Your task to perform on an android device: turn off airplane mode Image 0: 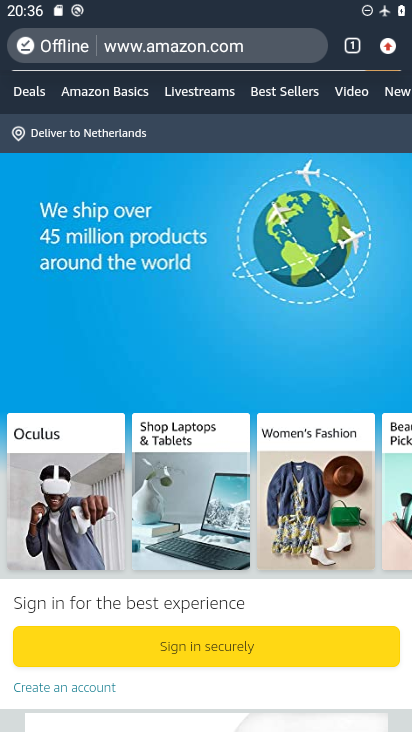
Step 0: press home button
Your task to perform on an android device: turn off airplane mode Image 1: 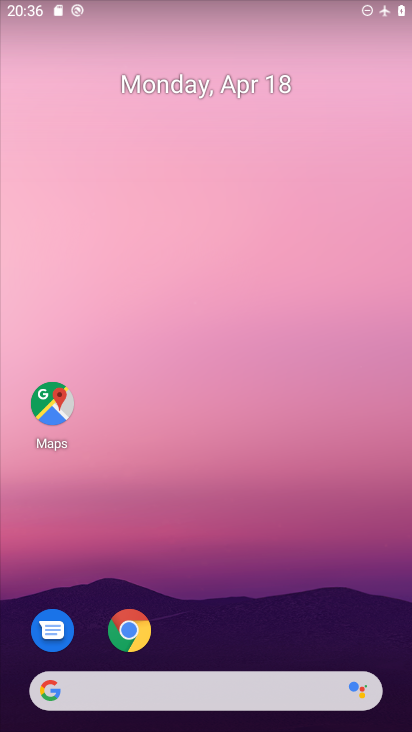
Step 1: drag from (192, 646) to (222, 269)
Your task to perform on an android device: turn off airplane mode Image 2: 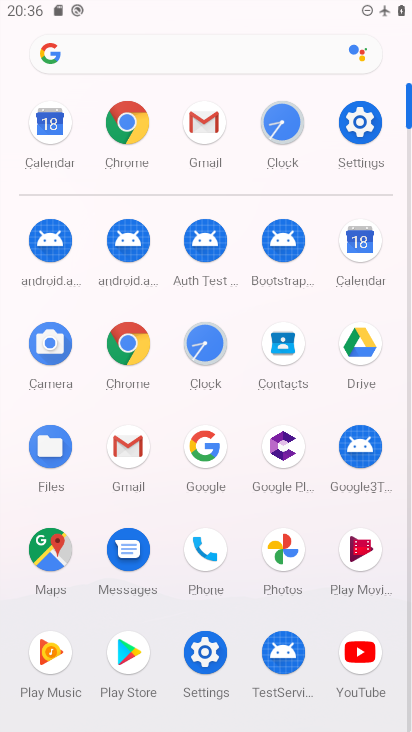
Step 2: click (358, 129)
Your task to perform on an android device: turn off airplane mode Image 3: 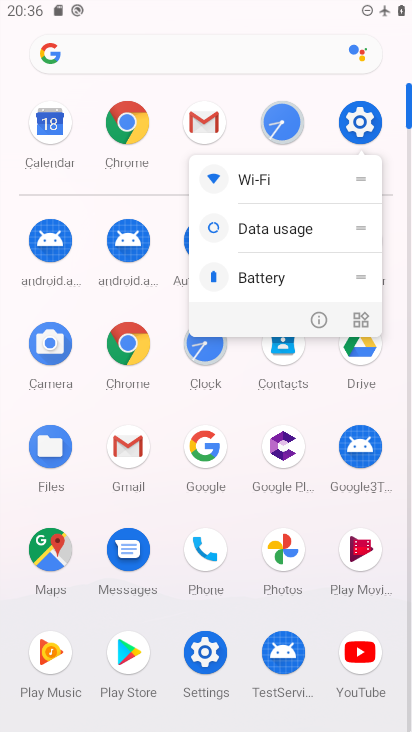
Step 3: click (369, 123)
Your task to perform on an android device: turn off airplane mode Image 4: 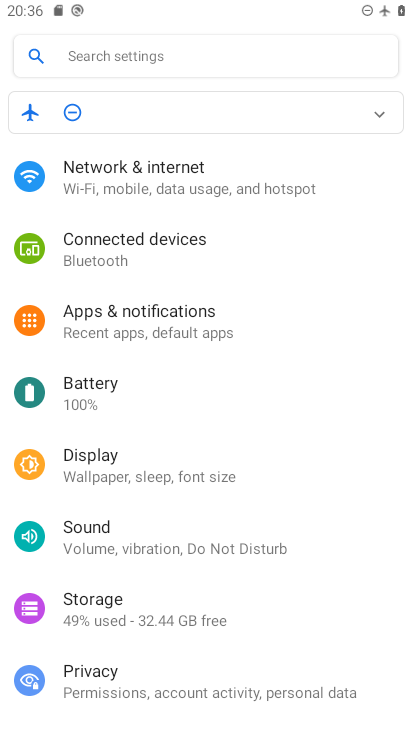
Step 4: click (160, 186)
Your task to perform on an android device: turn off airplane mode Image 5: 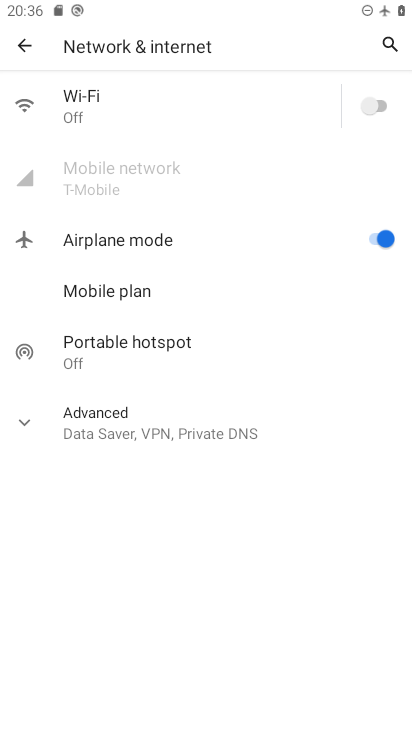
Step 5: click (370, 237)
Your task to perform on an android device: turn off airplane mode Image 6: 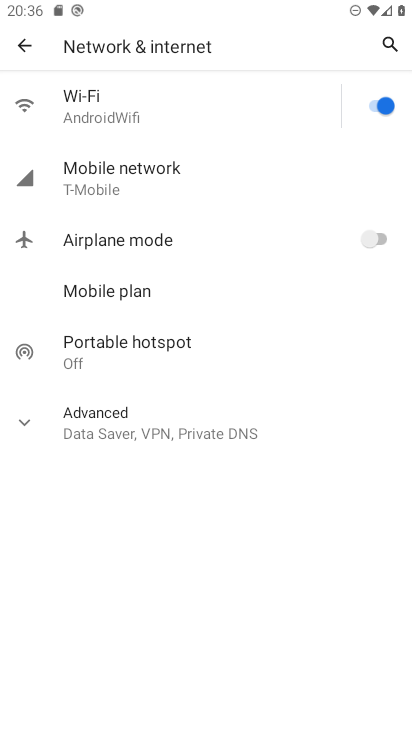
Step 6: task complete